Your task to perform on an android device: turn vacation reply on in the gmail app Image 0: 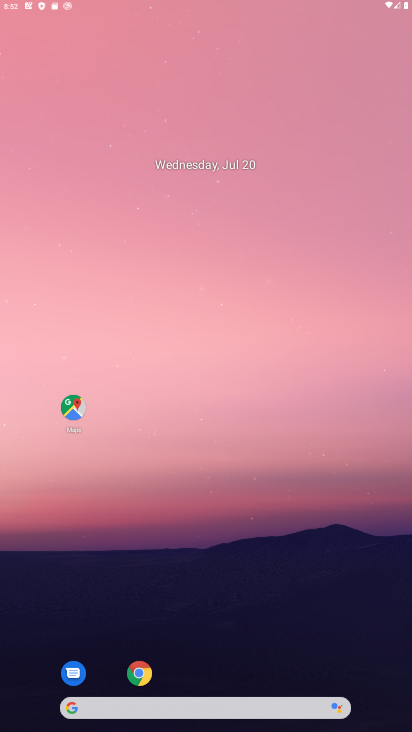
Step 0: click (263, 138)
Your task to perform on an android device: turn vacation reply on in the gmail app Image 1: 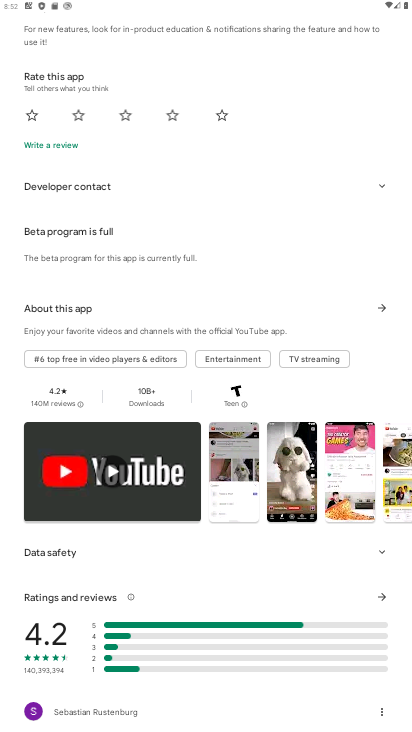
Step 1: drag from (187, 571) to (258, 192)
Your task to perform on an android device: turn vacation reply on in the gmail app Image 2: 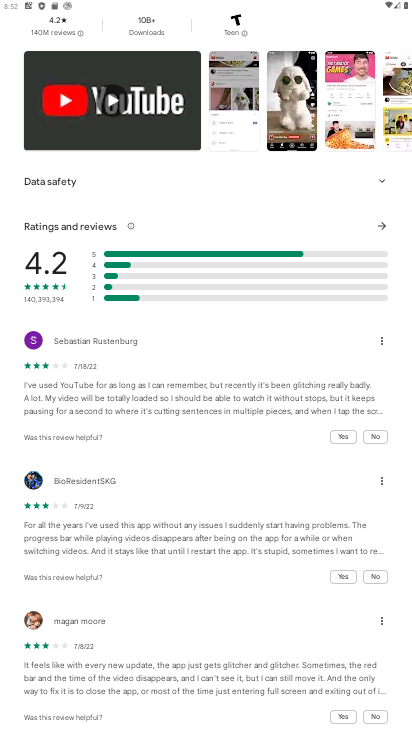
Step 2: drag from (290, 115) to (224, 636)
Your task to perform on an android device: turn vacation reply on in the gmail app Image 3: 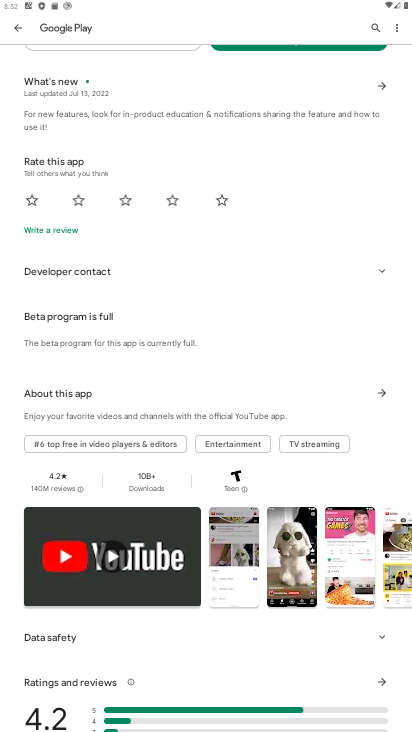
Step 3: drag from (270, 228) to (306, 728)
Your task to perform on an android device: turn vacation reply on in the gmail app Image 4: 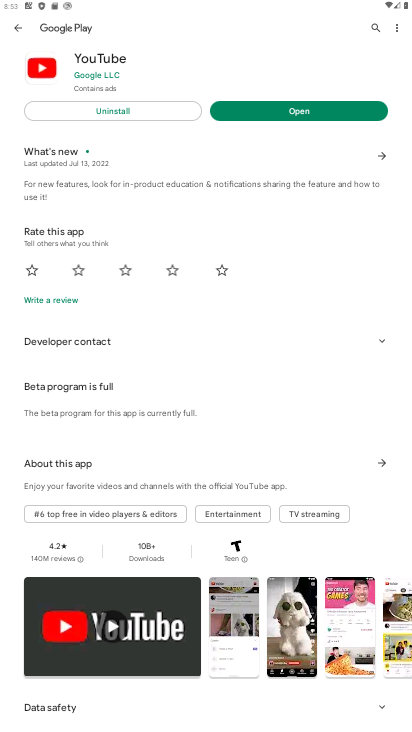
Step 4: drag from (209, 530) to (252, 194)
Your task to perform on an android device: turn vacation reply on in the gmail app Image 5: 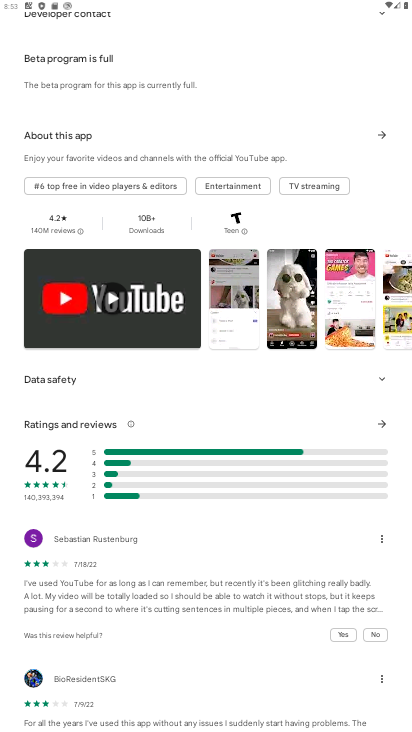
Step 5: drag from (145, 600) to (267, 216)
Your task to perform on an android device: turn vacation reply on in the gmail app Image 6: 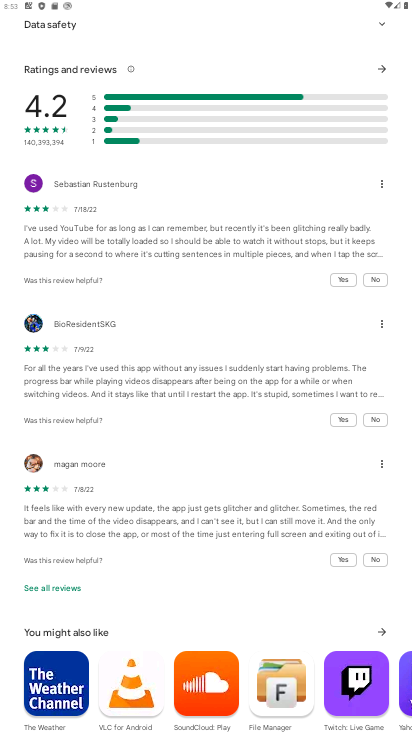
Step 6: drag from (230, 650) to (327, 713)
Your task to perform on an android device: turn vacation reply on in the gmail app Image 7: 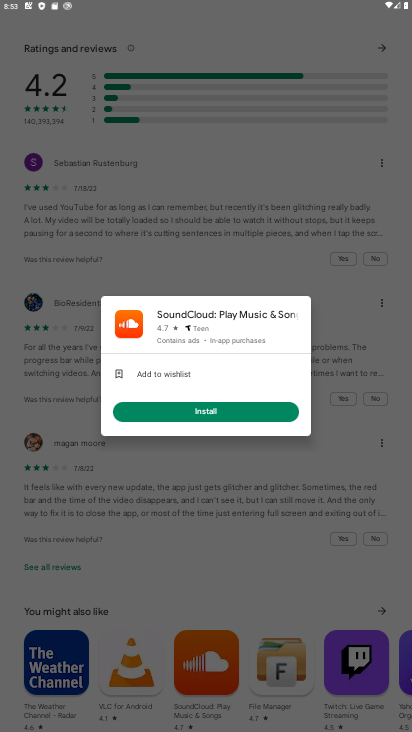
Step 7: press home button
Your task to perform on an android device: turn vacation reply on in the gmail app Image 8: 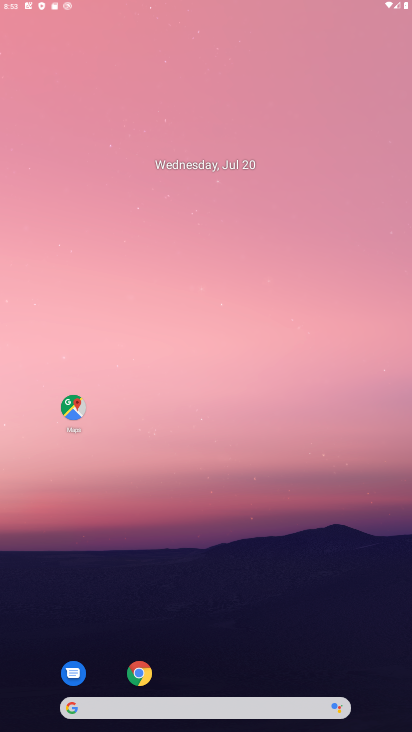
Step 8: drag from (167, 576) to (219, 83)
Your task to perform on an android device: turn vacation reply on in the gmail app Image 9: 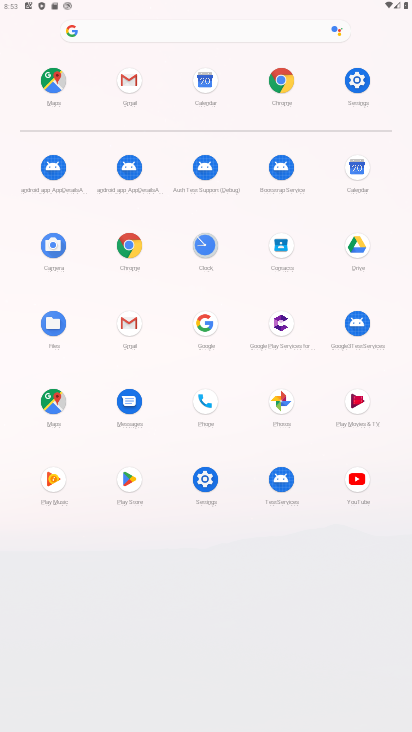
Step 9: click (116, 315)
Your task to perform on an android device: turn vacation reply on in the gmail app Image 10: 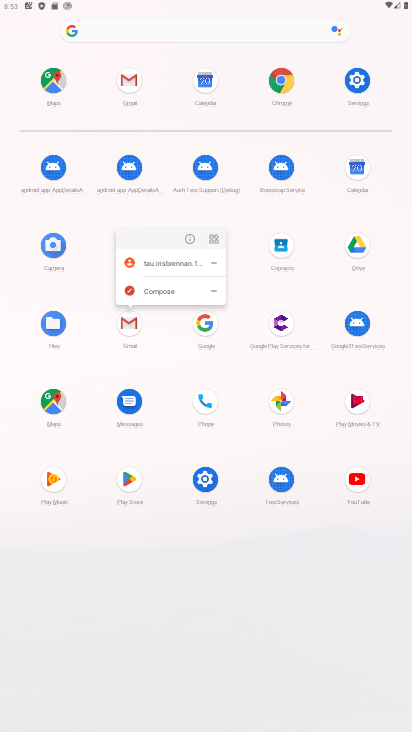
Step 10: click (191, 234)
Your task to perform on an android device: turn vacation reply on in the gmail app Image 11: 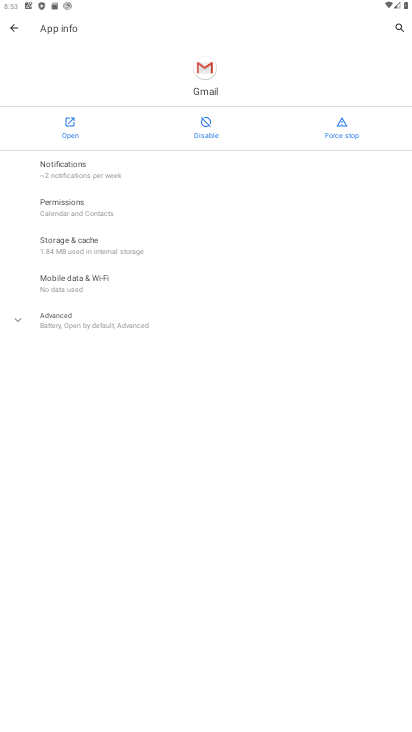
Step 11: click (74, 133)
Your task to perform on an android device: turn vacation reply on in the gmail app Image 12: 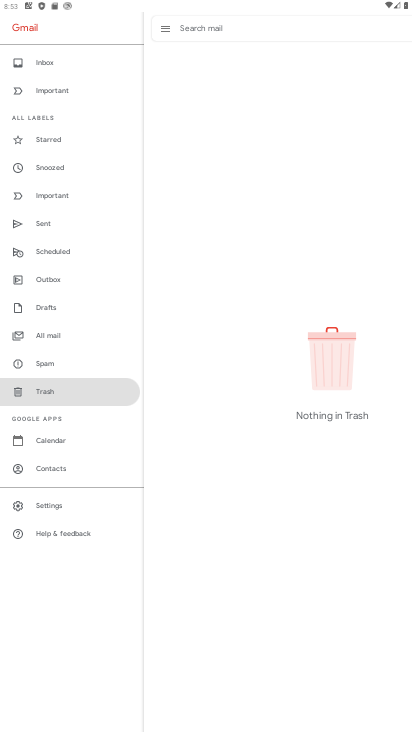
Step 12: drag from (76, 511) to (76, 261)
Your task to perform on an android device: turn vacation reply on in the gmail app Image 13: 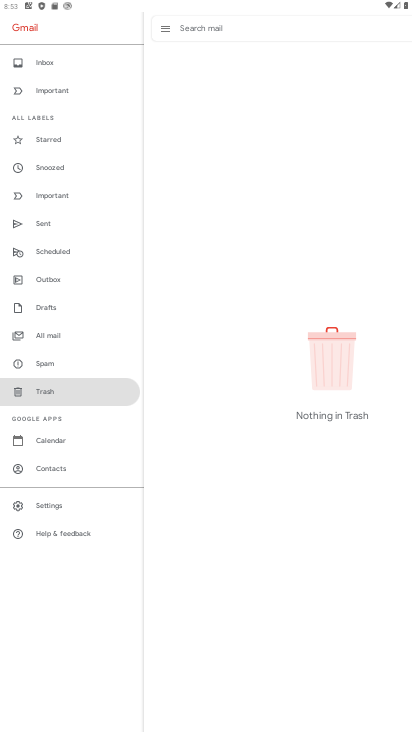
Step 13: click (47, 512)
Your task to perform on an android device: turn vacation reply on in the gmail app Image 14: 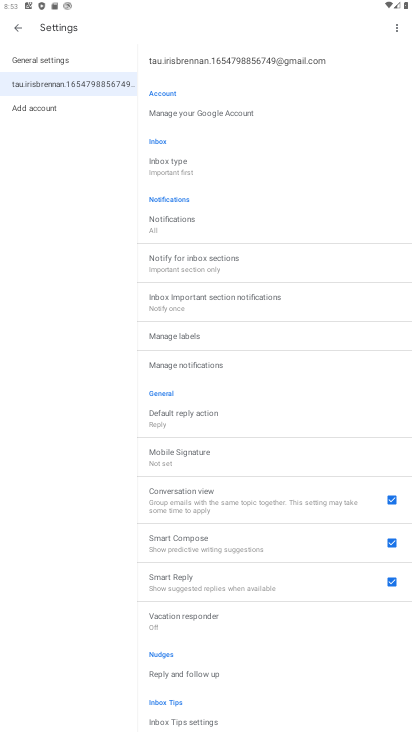
Step 14: drag from (262, 535) to (261, 153)
Your task to perform on an android device: turn vacation reply on in the gmail app Image 15: 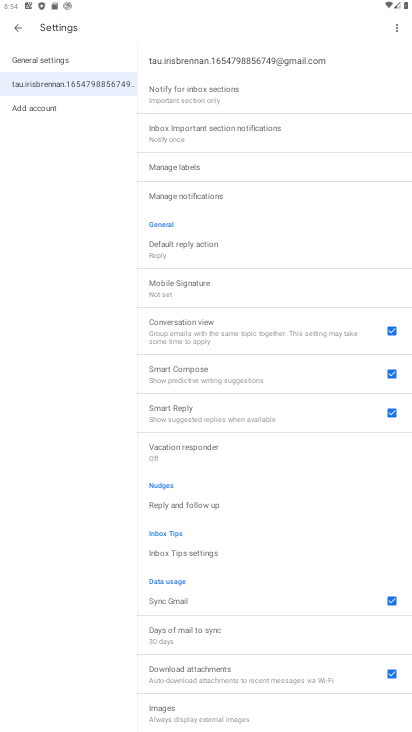
Step 15: click (226, 447)
Your task to perform on an android device: turn vacation reply on in the gmail app Image 16: 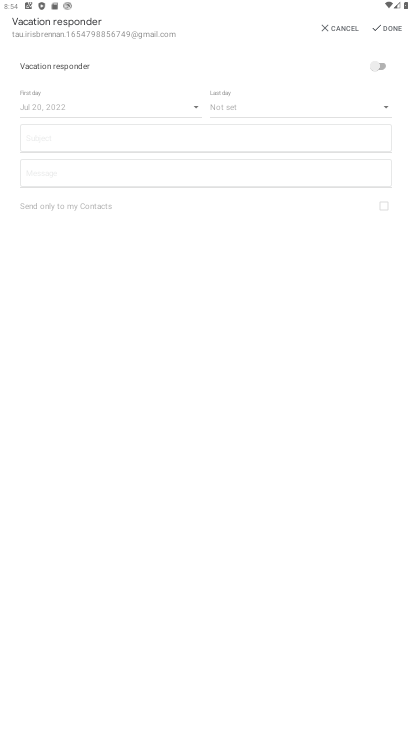
Step 16: click (380, 65)
Your task to perform on an android device: turn vacation reply on in the gmail app Image 17: 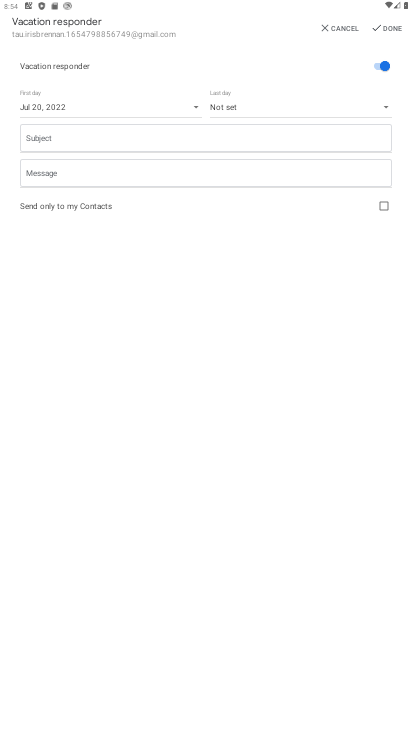
Step 17: click (394, 28)
Your task to perform on an android device: turn vacation reply on in the gmail app Image 18: 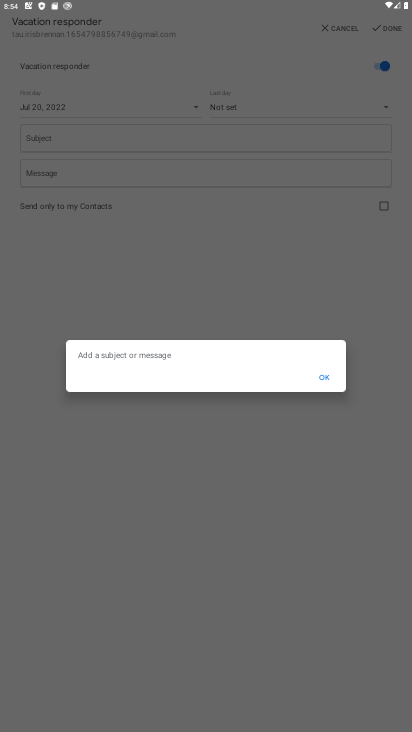
Step 18: task complete